Your task to perform on an android device: open the mobile data screen to see how much data has been used Image 0: 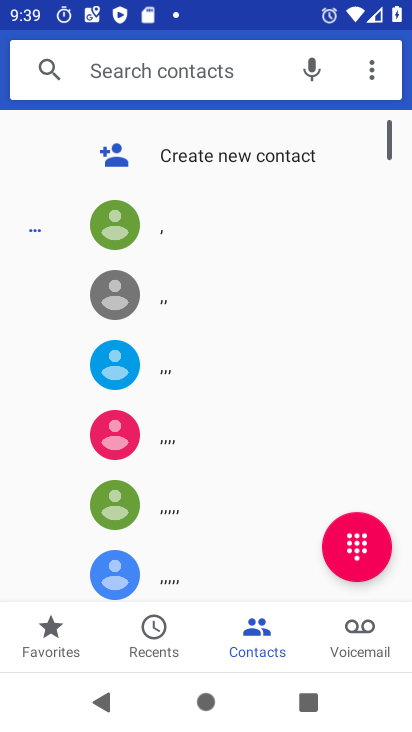
Step 0: press home button
Your task to perform on an android device: open the mobile data screen to see how much data has been used Image 1: 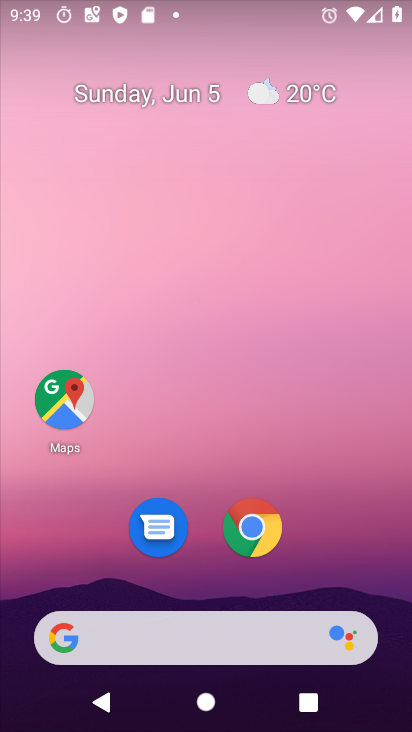
Step 1: drag from (337, 528) to (228, 1)
Your task to perform on an android device: open the mobile data screen to see how much data has been used Image 2: 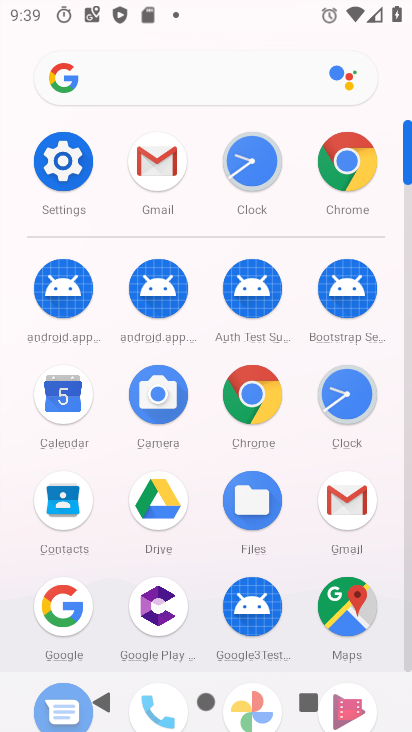
Step 2: click (76, 224)
Your task to perform on an android device: open the mobile data screen to see how much data has been used Image 3: 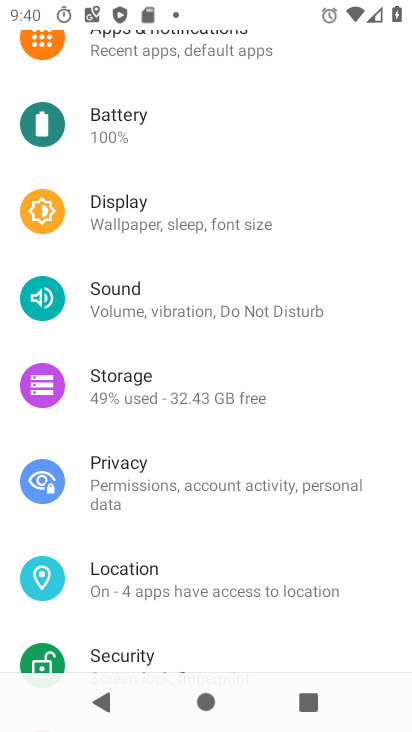
Step 3: drag from (259, 165) to (211, 645)
Your task to perform on an android device: open the mobile data screen to see how much data has been used Image 4: 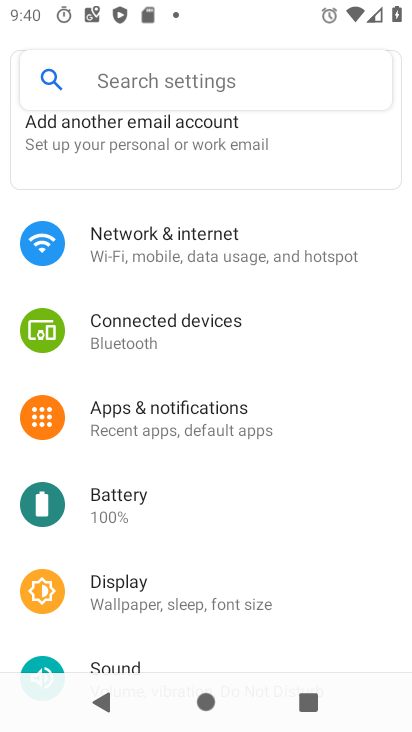
Step 4: click (225, 248)
Your task to perform on an android device: open the mobile data screen to see how much data has been used Image 5: 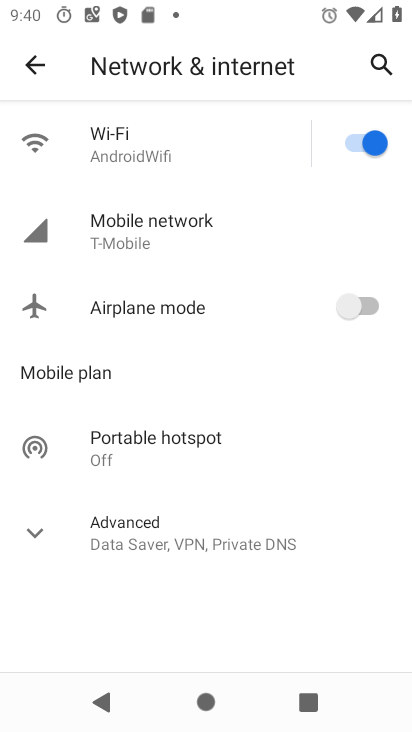
Step 5: click (225, 248)
Your task to perform on an android device: open the mobile data screen to see how much data has been used Image 6: 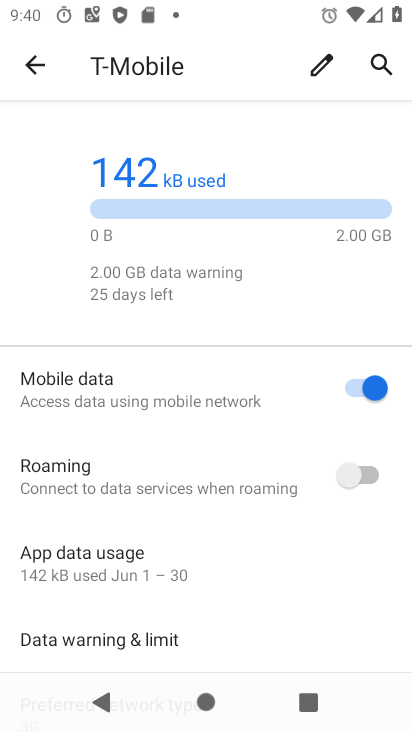
Step 6: task complete